Your task to perform on an android device: Search for "razer kraken" on costco.com, select the first entry, add it to the cart, then select checkout. Image 0: 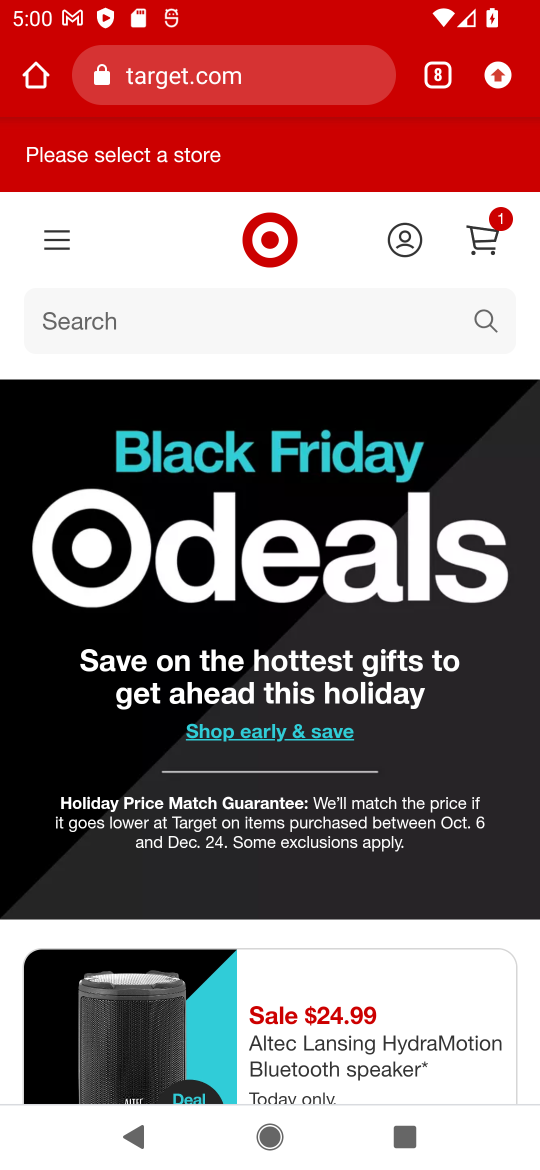
Step 0: press home button
Your task to perform on an android device: Search for "razer kraken" on costco.com, select the first entry, add it to the cart, then select checkout. Image 1: 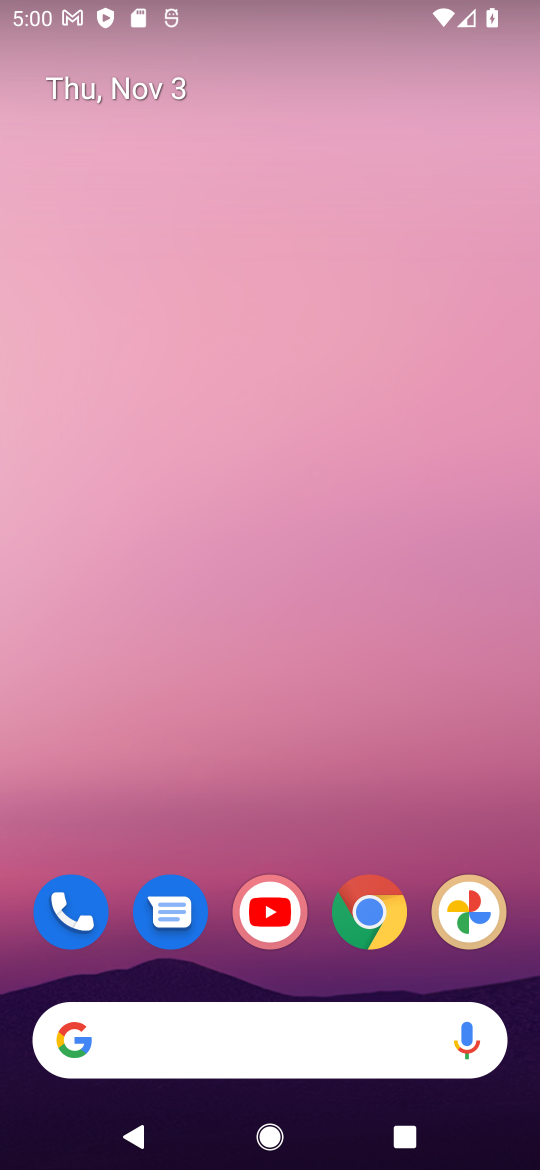
Step 1: click (371, 915)
Your task to perform on an android device: Search for "razer kraken" on costco.com, select the first entry, add it to the cart, then select checkout. Image 2: 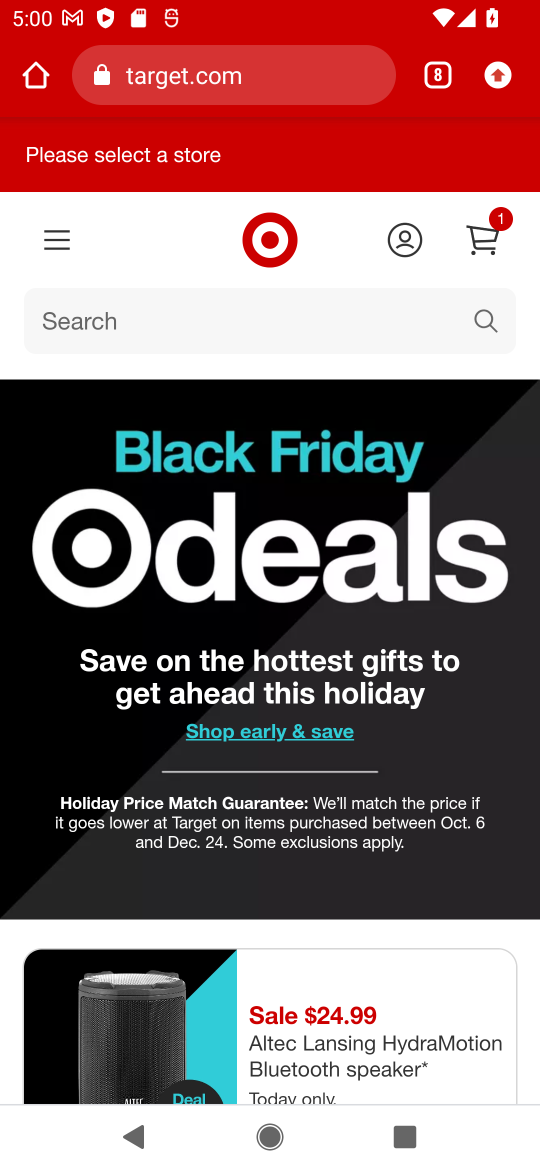
Step 2: click (434, 75)
Your task to perform on an android device: Search for "razer kraken" on costco.com, select the first entry, add it to the cart, then select checkout. Image 3: 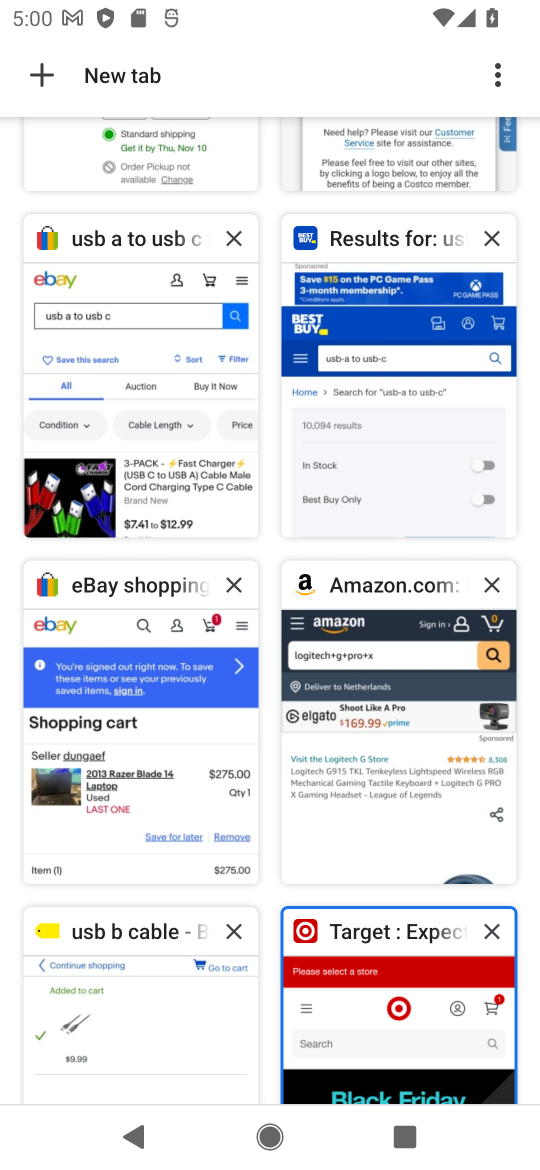
Step 3: drag from (310, 255) to (317, 1021)
Your task to perform on an android device: Search for "razer kraken" on costco.com, select the first entry, add it to the cart, then select checkout. Image 4: 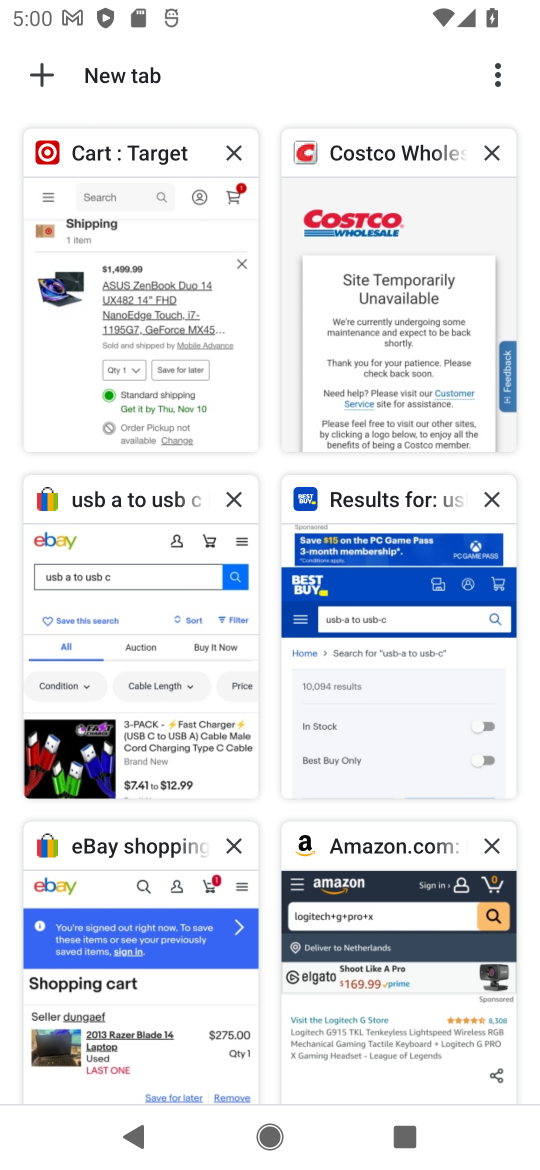
Step 4: click (397, 327)
Your task to perform on an android device: Search for "razer kraken" on costco.com, select the first entry, add it to the cart, then select checkout. Image 5: 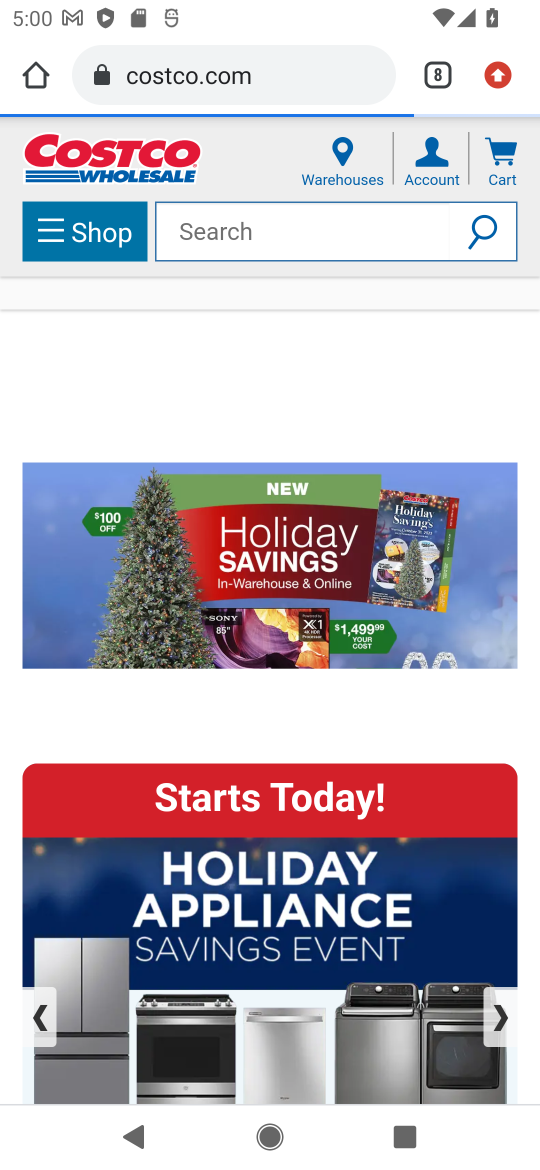
Step 5: click (271, 234)
Your task to perform on an android device: Search for "razer kraken" on costco.com, select the first entry, add it to the cart, then select checkout. Image 6: 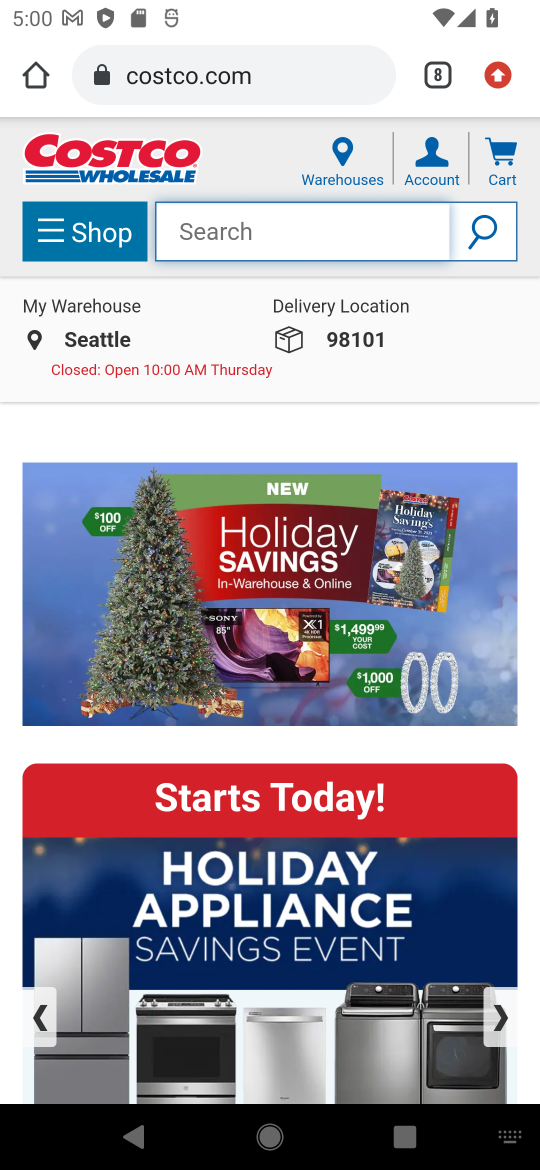
Step 6: click (249, 240)
Your task to perform on an android device: Search for "razer kraken" on costco.com, select the first entry, add it to the cart, then select checkout. Image 7: 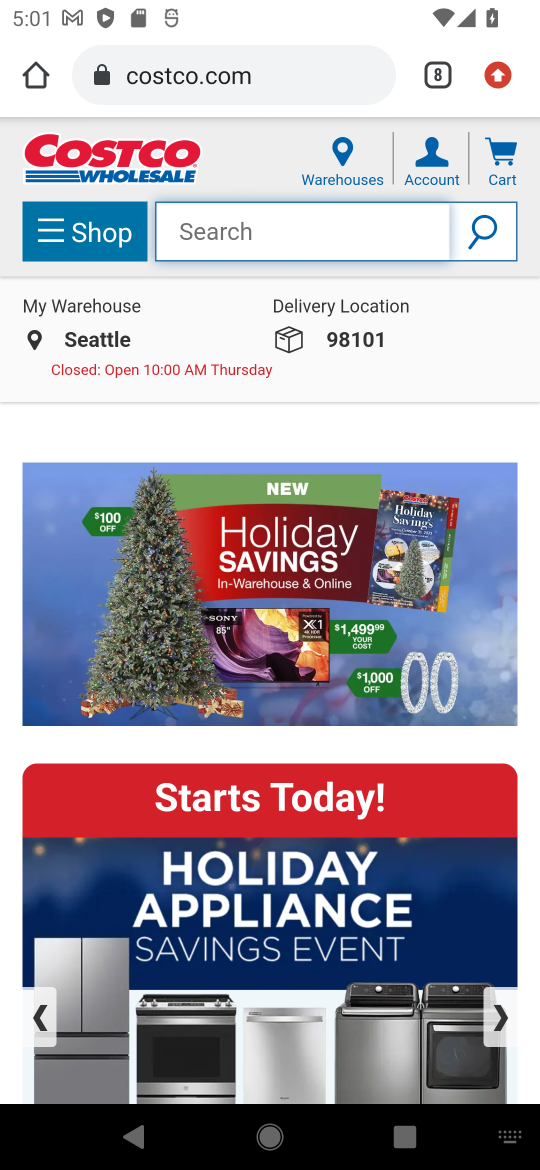
Step 7: click (316, 231)
Your task to perform on an android device: Search for "razer kraken" on costco.com, select the first entry, add it to the cart, then select checkout. Image 8: 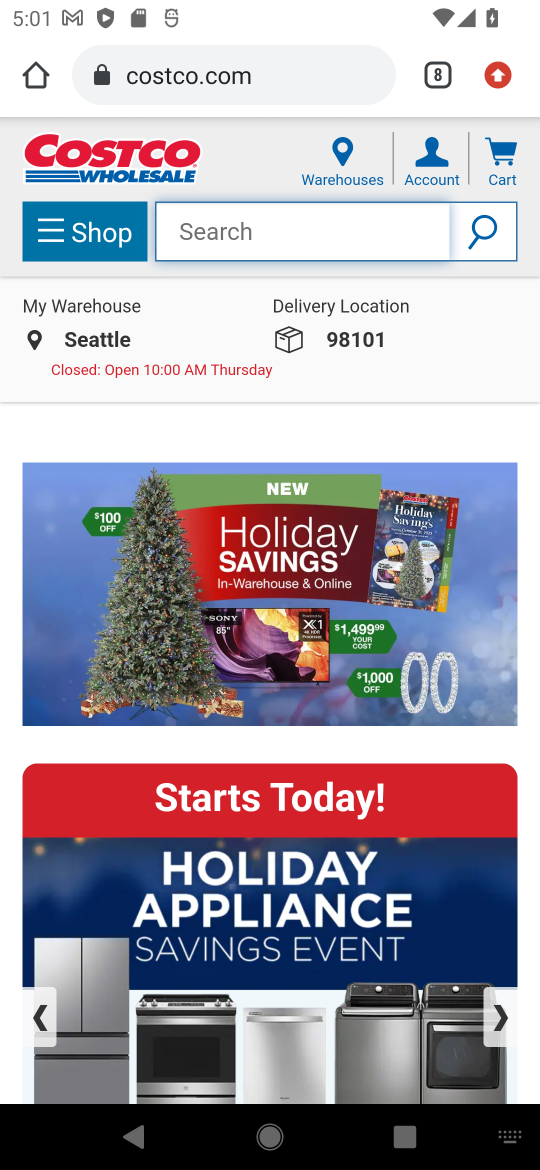
Step 8: type "razer kraken"
Your task to perform on an android device: Search for "razer kraken" on costco.com, select the first entry, add it to the cart, then select checkout. Image 9: 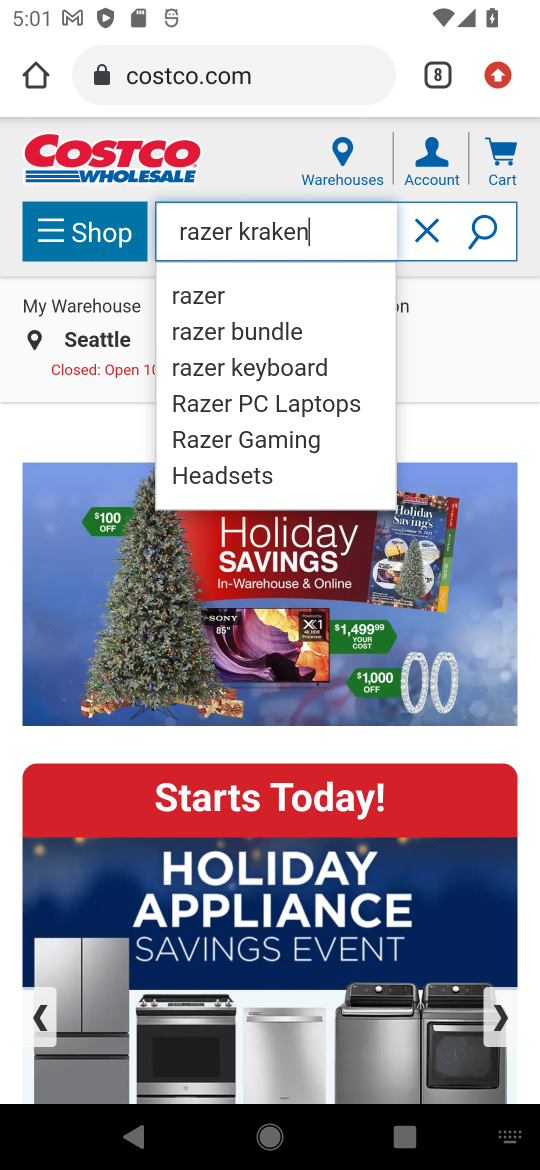
Step 9: click (225, 287)
Your task to perform on an android device: Search for "razer kraken" on costco.com, select the first entry, add it to the cart, then select checkout. Image 10: 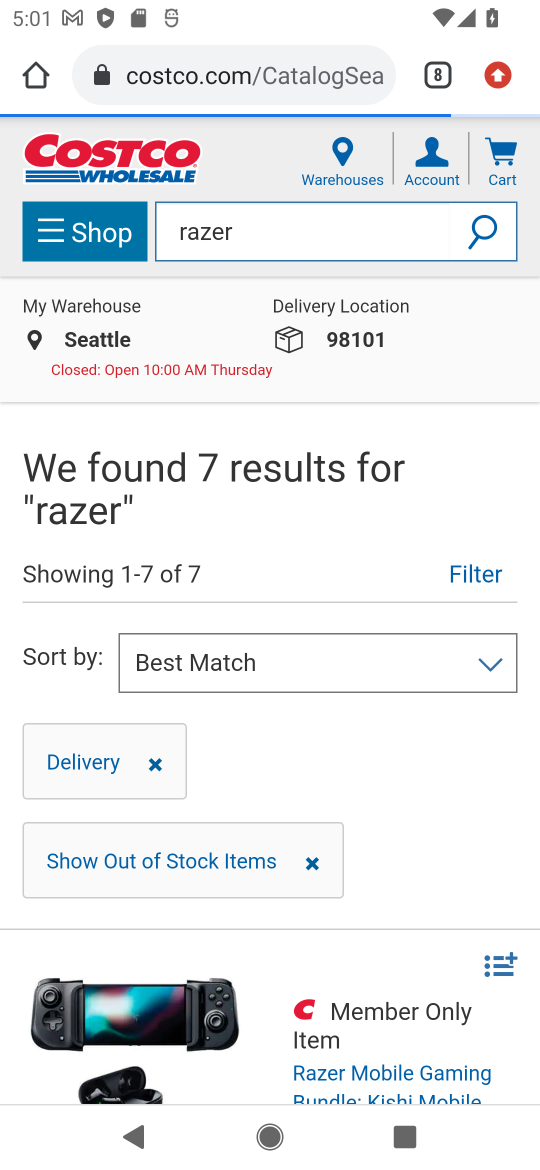
Step 10: task complete